Your task to perform on an android device: Search for Mexican restaurants on Maps Image 0: 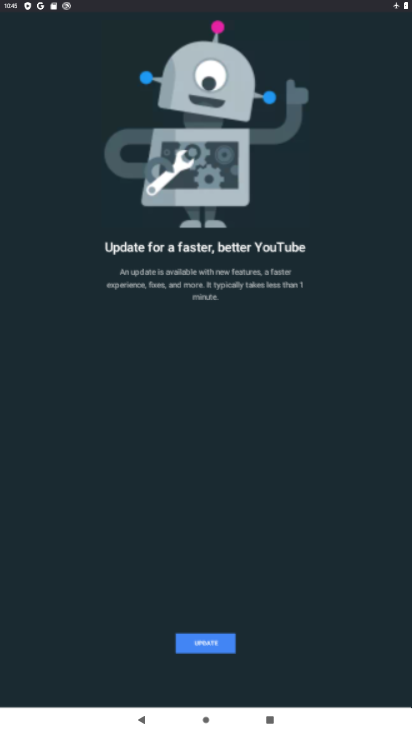
Step 0: drag from (234, 618) to (238, 560)
Your task to perform on an android device: Search for Mexican restaurants on Maps Image 1: 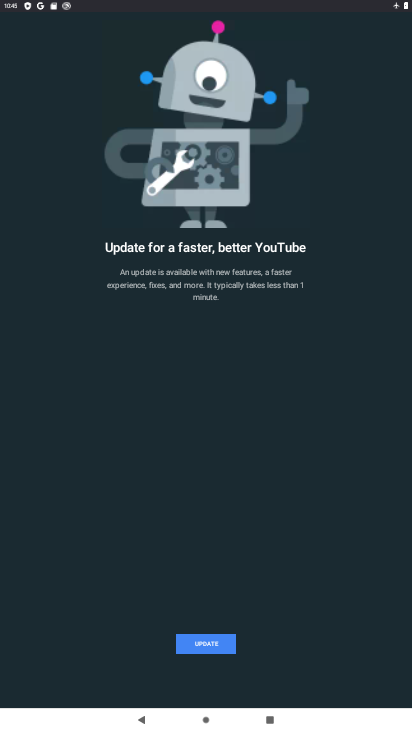
Step 1: press home button
Your task to perform on an android device: Search for Mexican restaurants on Maps Image 2: 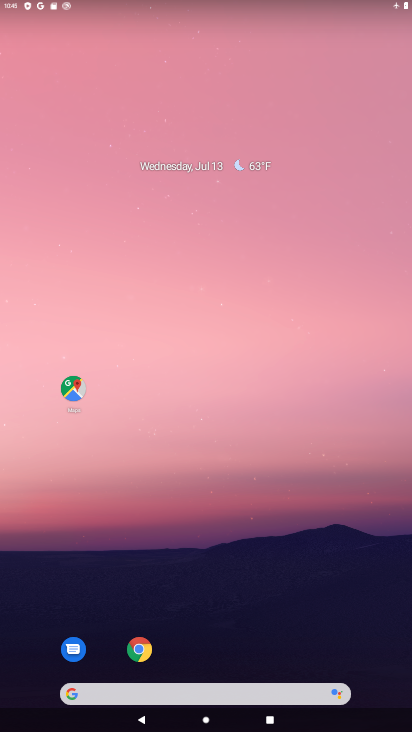
Step 2: drag from (221, 617) to (244, 232)
Your task to perform on an android device: Search for Mexican restaurants on Maps Image 3: 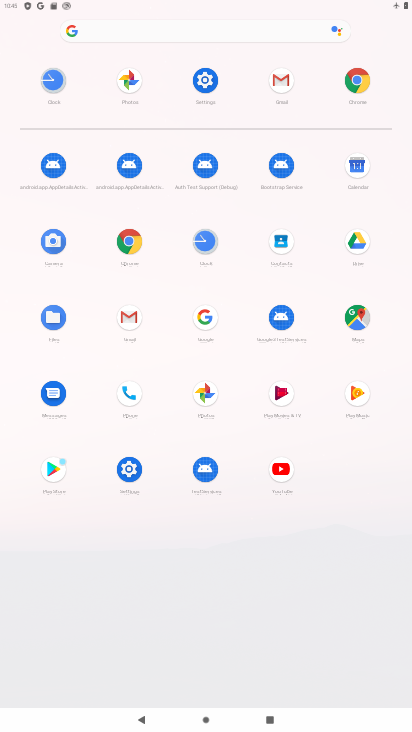
Step 3: click (348, 314)
Your task to perform on an android device: Search for Mexican restaurants on Maps Image 4: 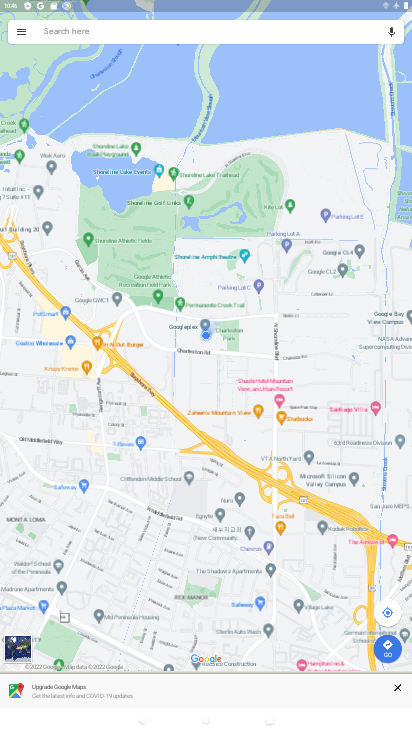
Step 4: click (203, 25)
Your task to perform on an android device: Search for Mexican restaurants on Maps Image 5: 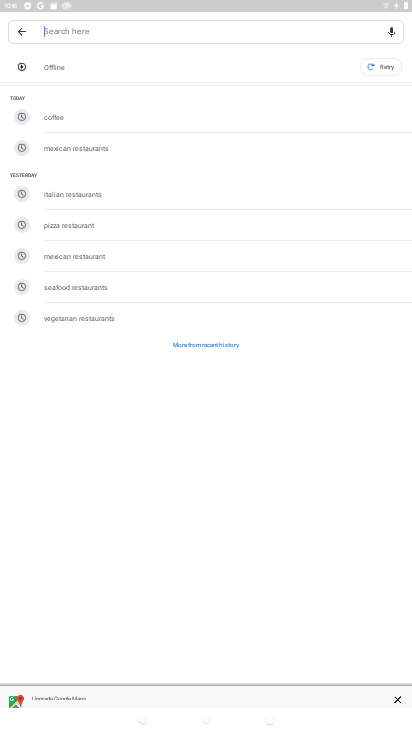
Step 5: type " Mexican restaurant "
Your task to perform on an android device: Search for Mexican restaurants on Maps Image 6: 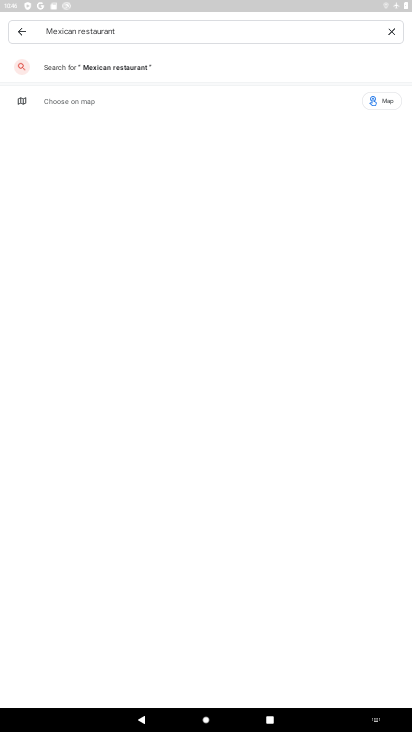
Step 6: click (189, 78)
Your task to perform on an android device: Search for Mexican restaurants on Maps Image 7: 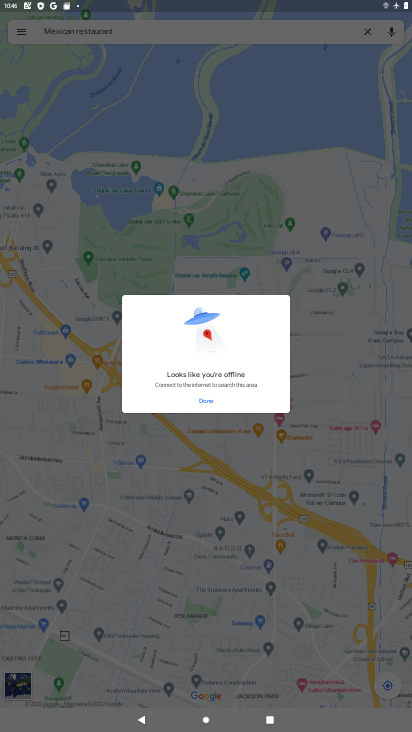
Step 7: task complete